Your task to perform on an android device: Search for seafood restaurants on Google Maps Image 0: 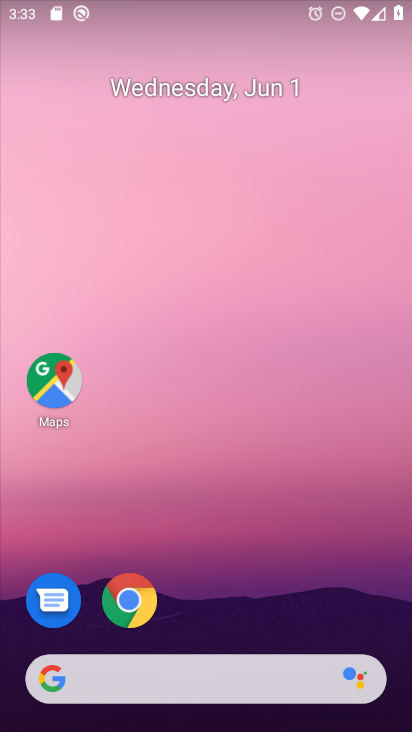
Step 0: drag from (190, 625) to (193, 180)
Your task to perform on an android device: Search for seafood restaurants on Google Maps Image 1: 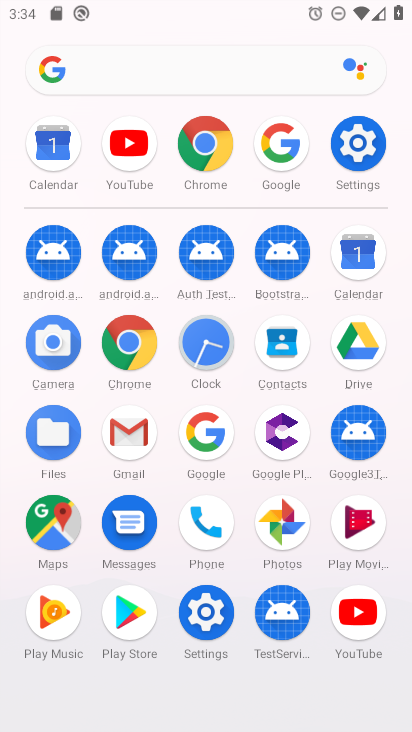
Step 1: click (54, 528)
Your task to perform on an android device: Search for seafood restaurants on Google Maps Image 2: 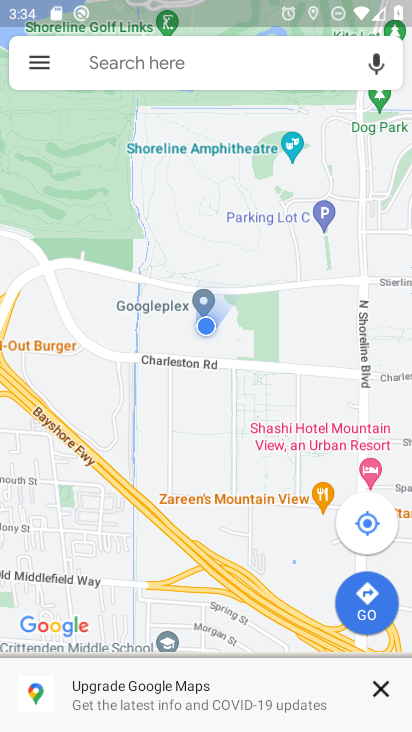
Step 2: click (157, 46)
Your task to perform on an android device: Search for seafood restaurants on Google Maps Image 3: 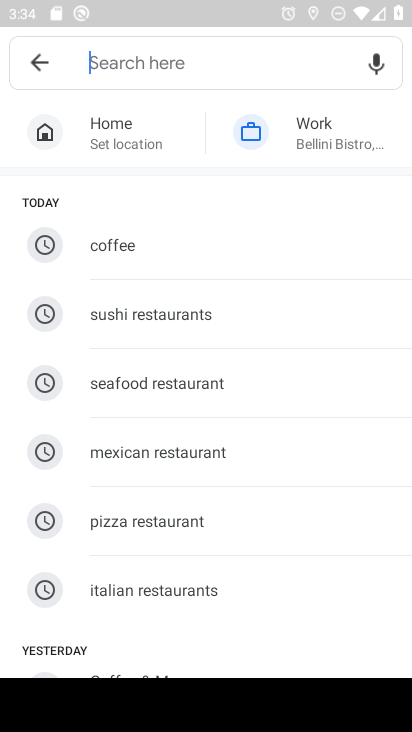
Step 3: click (155, 385)
Your task to perform on an android device: Search for seafood restaurants on Google Maps Image 4: 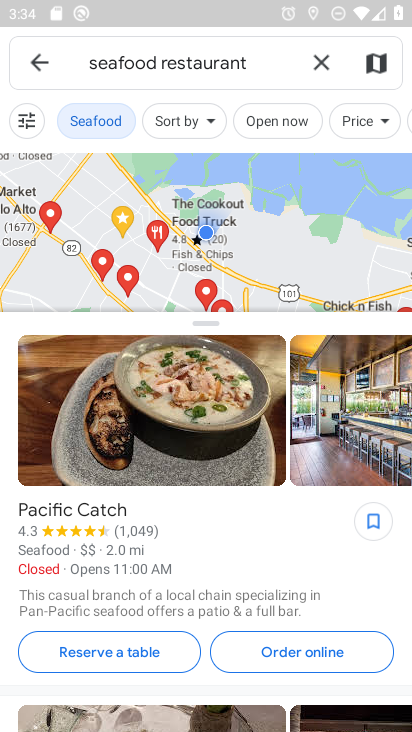
Step 4: task complete